Your task to perform on an android device: turn off notifications settings in the gmail app Image 0: 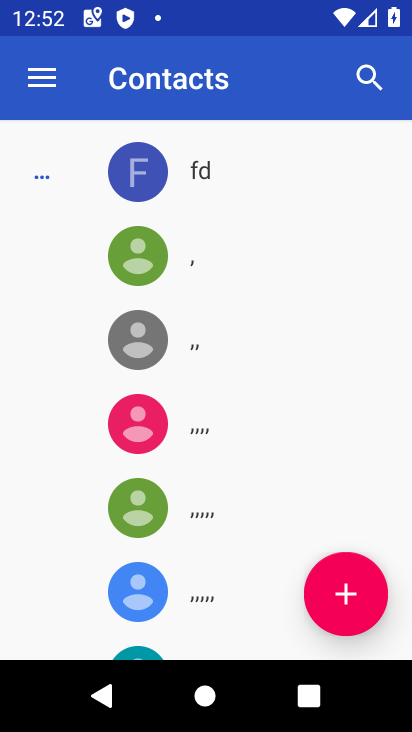
Step 0: press home button
Your task to perform on an android device: turn off notifications settings in the gmail app Image 1: 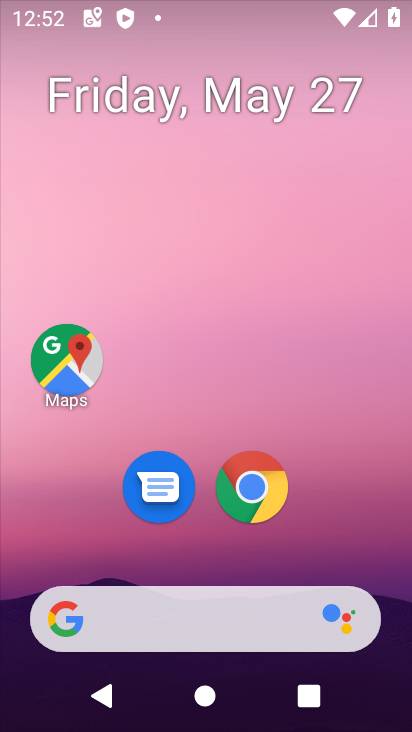
Step 1: drag from (215, 534) to (237, 138)
Your task to perform on an android device: turn off notifications settings in the gmail app Image 2: 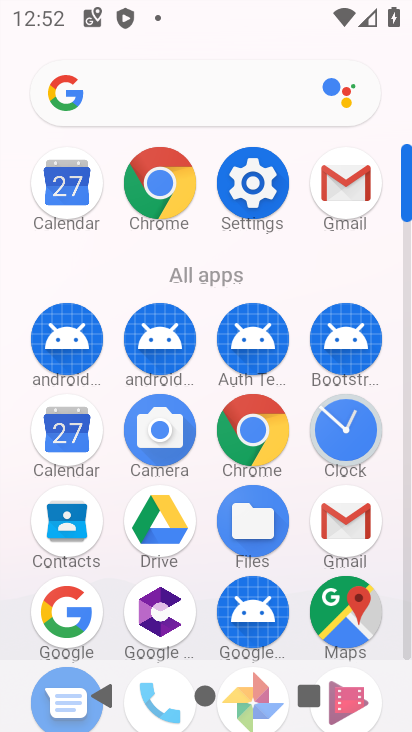
Step 2: click (338, 186)
Your task to perform on an android device: turn off notifications settings in the gmail app Image 3: 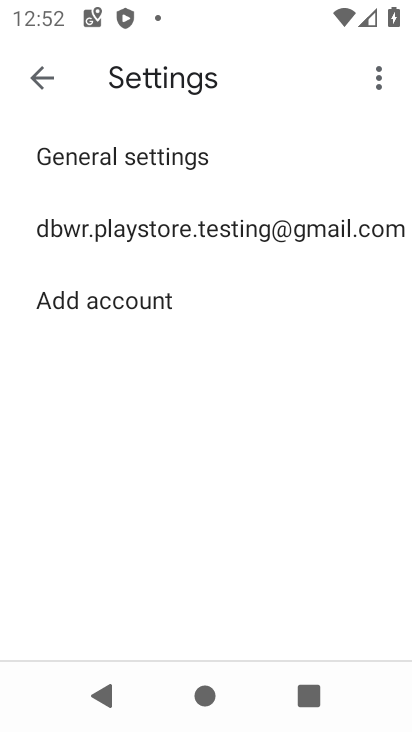
Step 3: click (110, 227)
Your task to perform on an android device: turn off notifications settings in the gmail app Image 4: 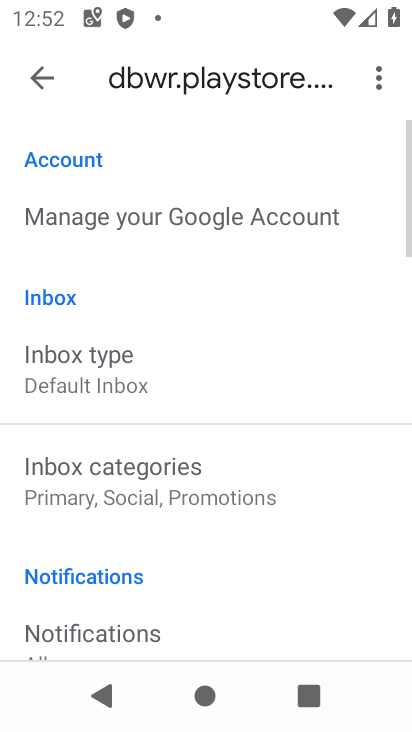
Step 4: click (108, 629)
Your task to perform on an android device: turn off notifications settings in the gmail app Image 5: 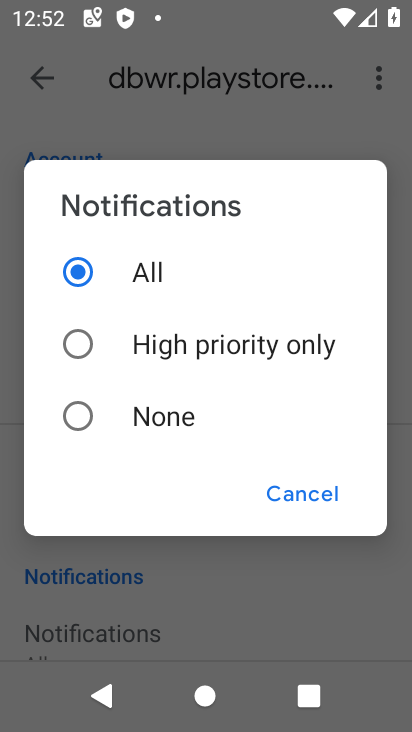
Step 5: click (77, 410)
Your task to perform on an android device: turn off notifications settings in the gmail app Image 6: 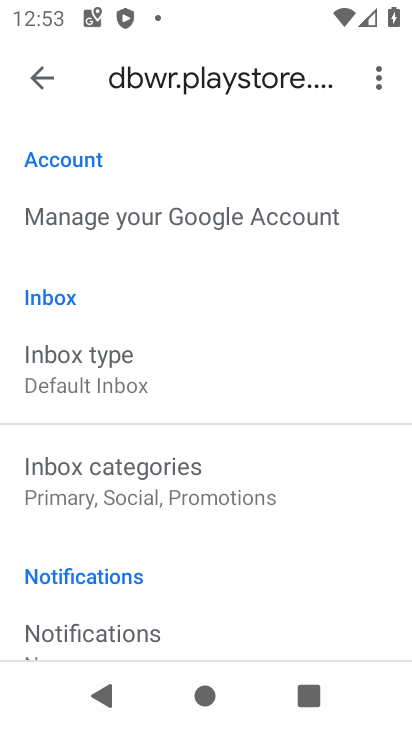
Step 6: task complete